Your task to perform on an android device: Open Chrome and go to settings Image 0: 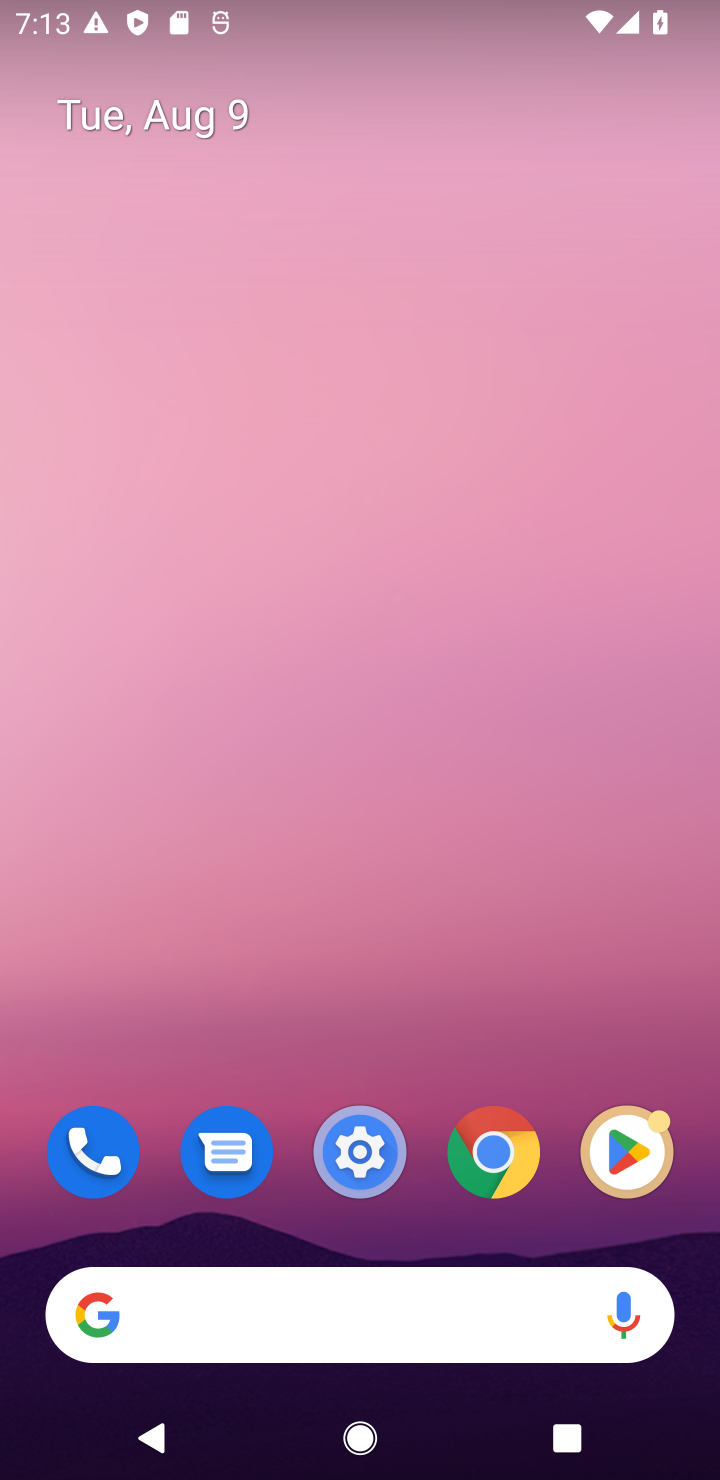
Step 0: click (496, 1162)
Your task to perform on an android device: Open Chrome and go to settings Image 1: 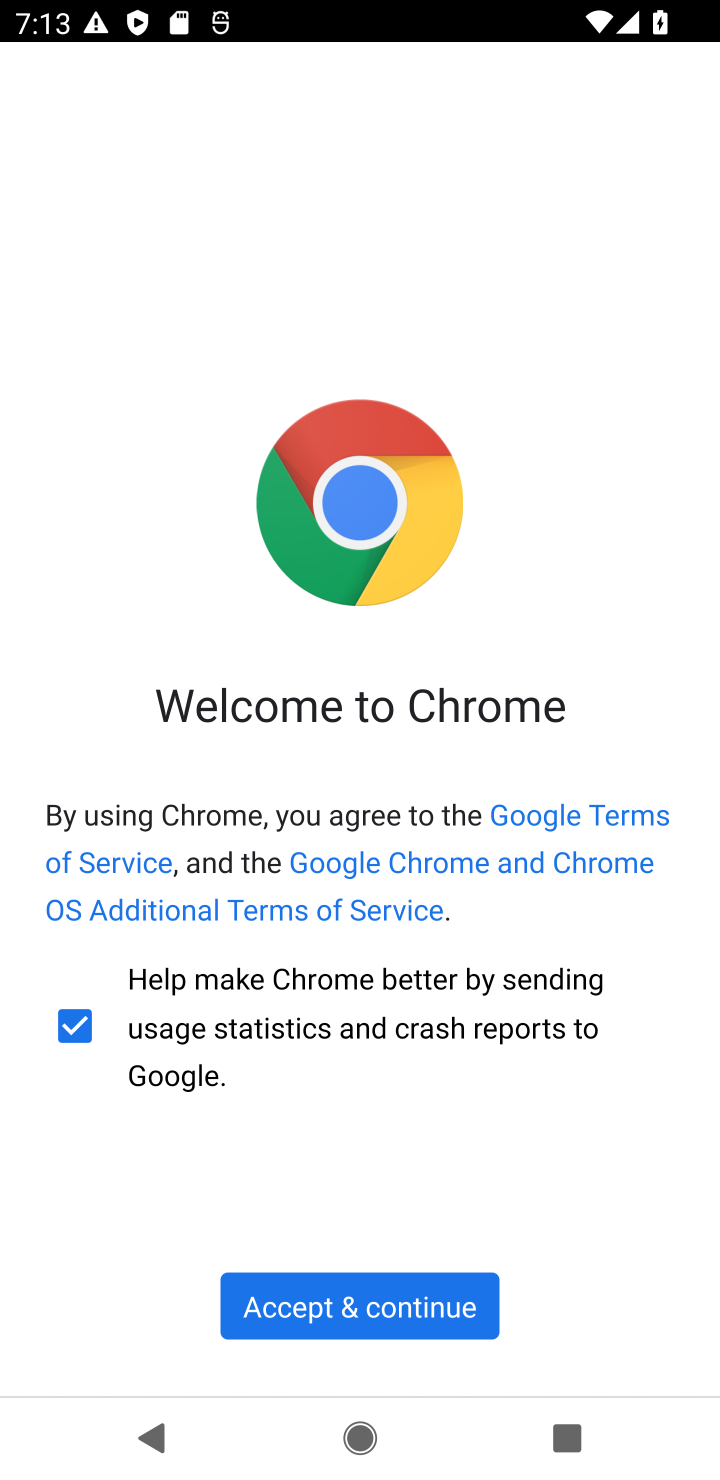
Step 1: click (420, 1279)
Your task to perform on an android device: Open Chrome and go to settings Image 2: 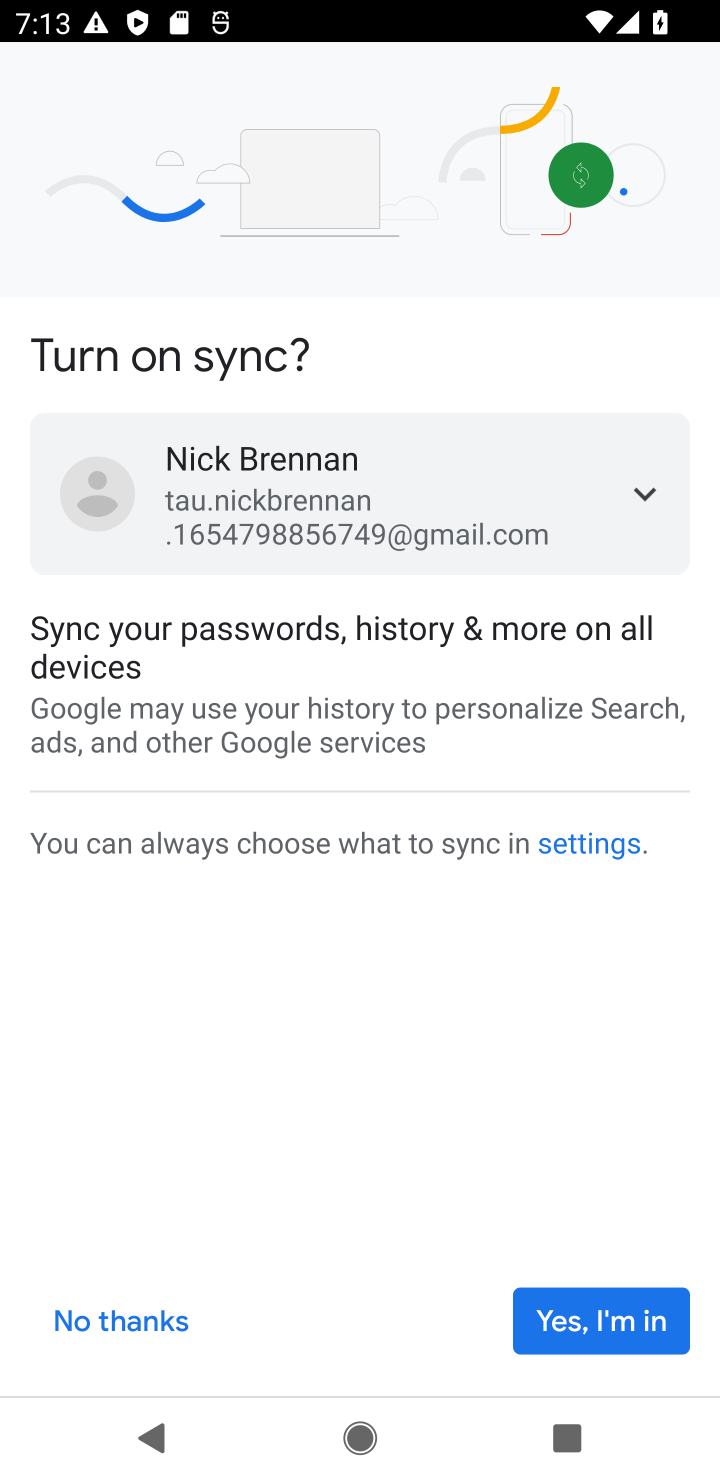
Step 2: click (602, 1313)
Your task to perform on an android device: Open Chrome and go to settings Image 3: 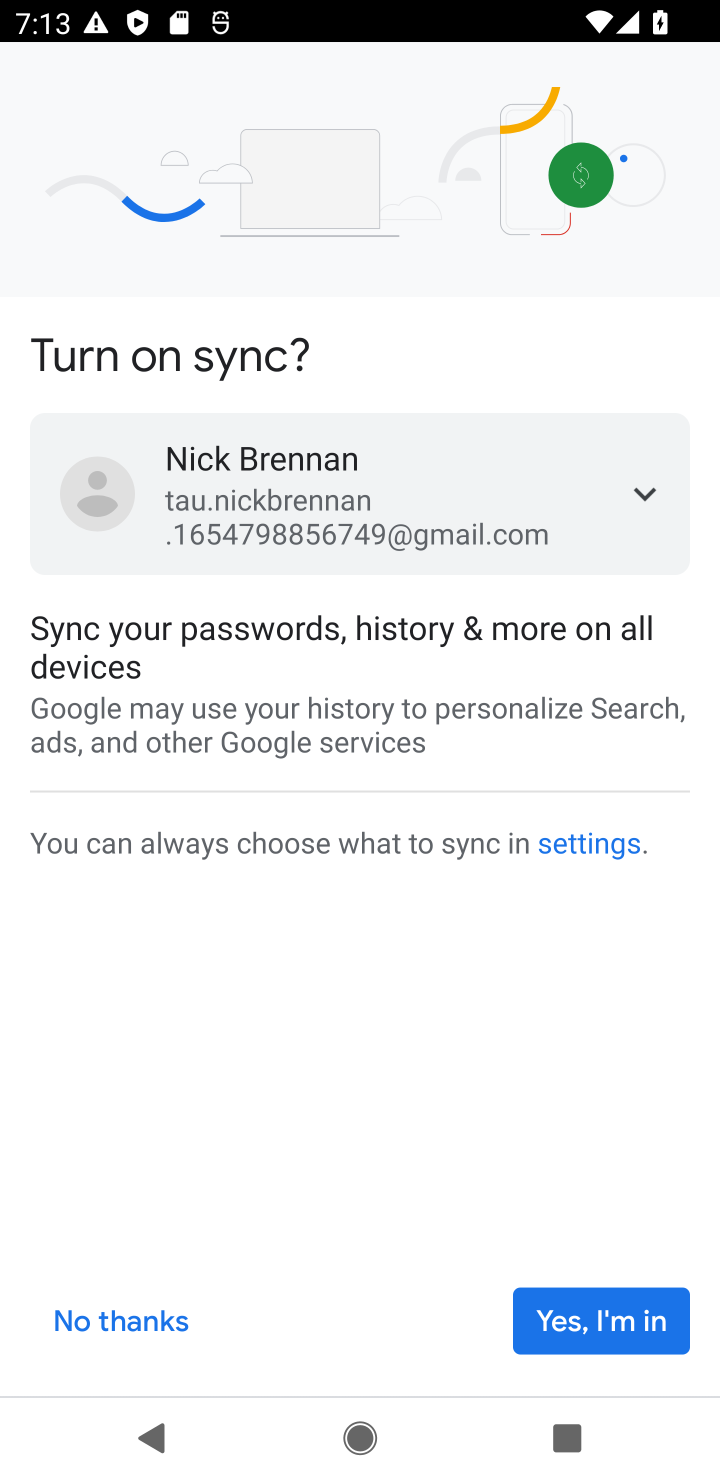
Step 3: click (602, 1313)
Your task to perform on an android device: Open Chrome and go to settings Image 4: 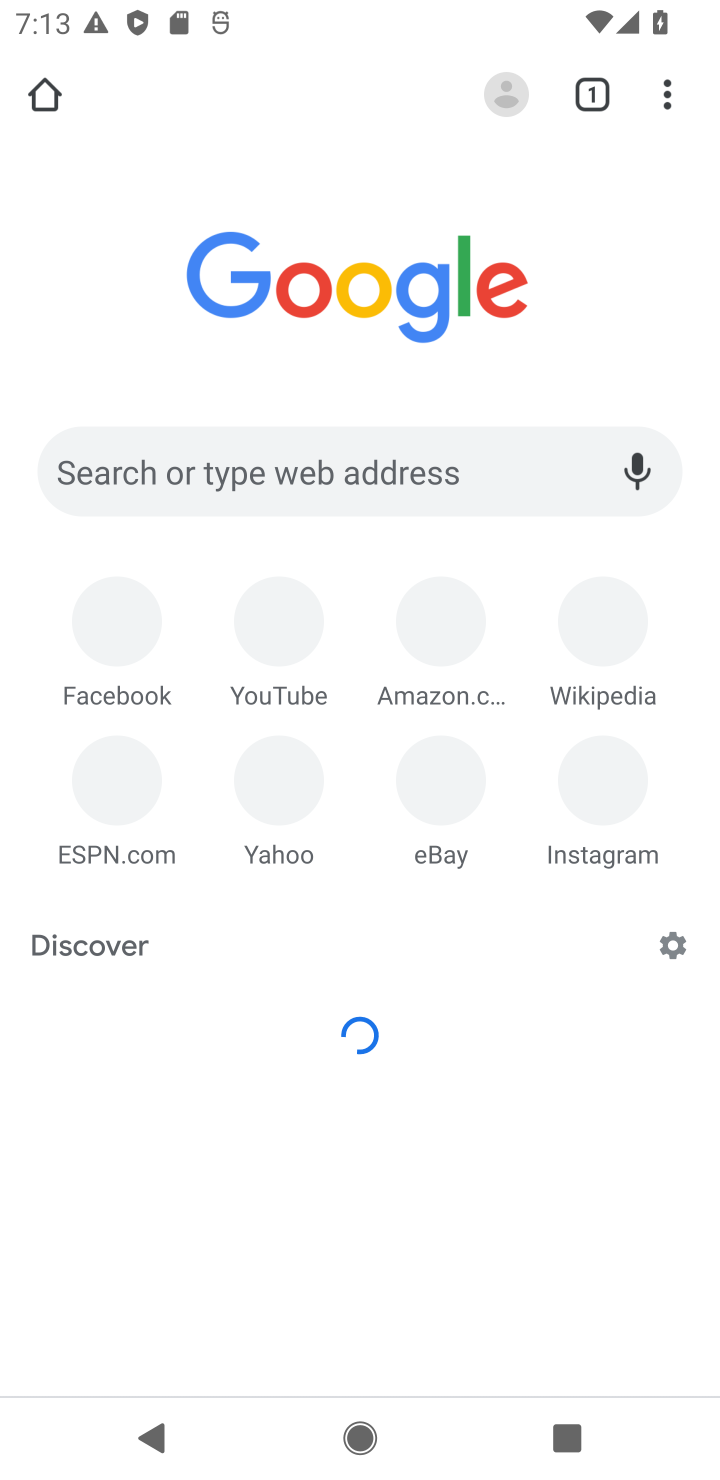
Step 4: click (602, 1322)
Your task to perform on an android device: Open Chrome and go to settings Image 5: 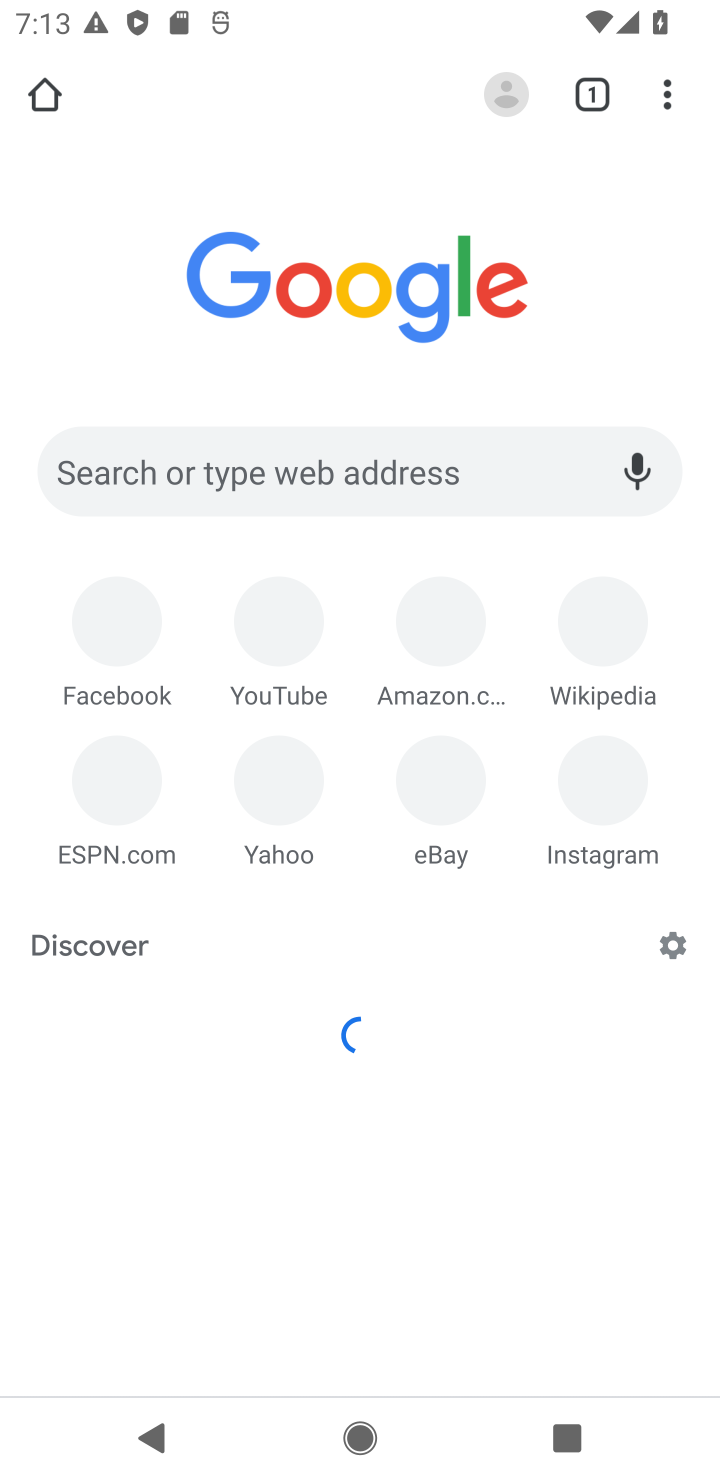
Step 5: click (699, 81)
Your task to perform on an android device: Open Chrome and go to settings Image 6: 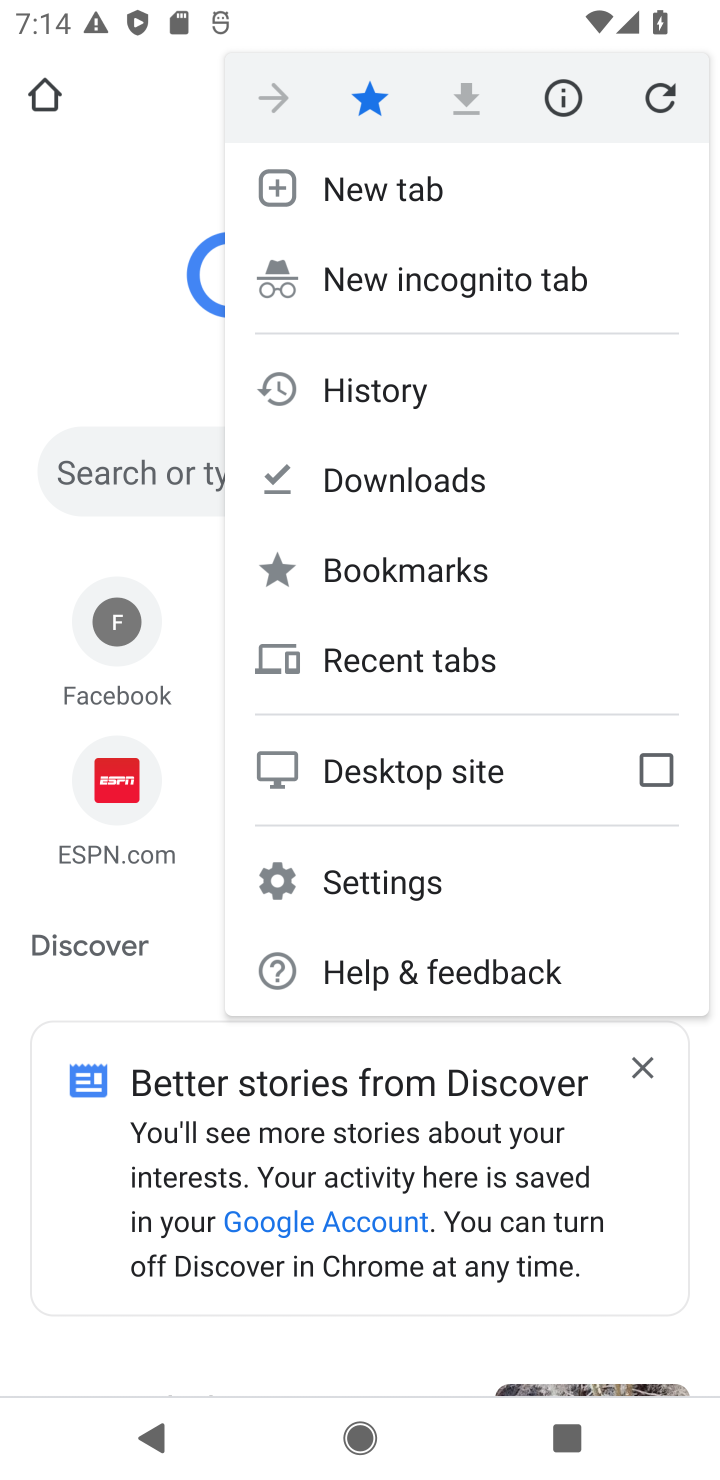
Step 6: click (455, 890)
Your task to perform on an android device: Open Chrome and go to settings Image 7: 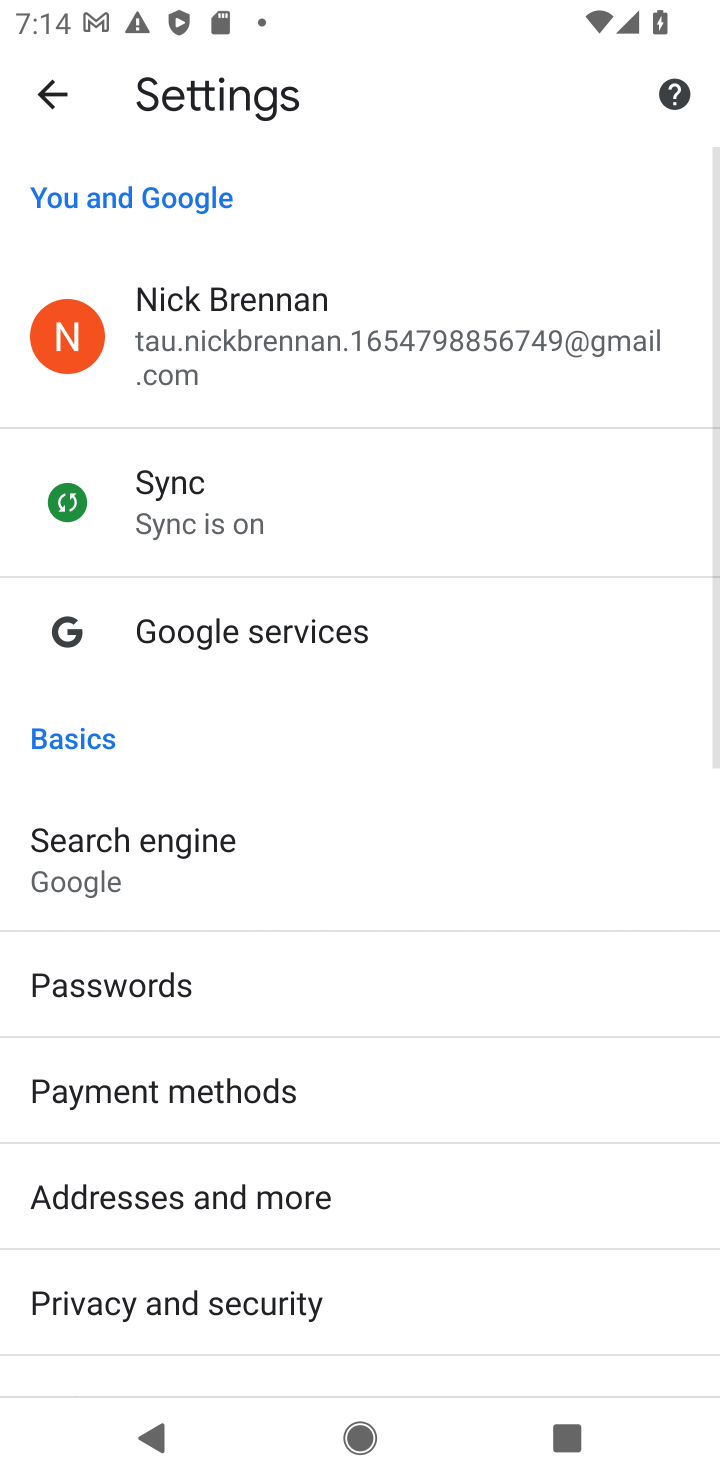
Step 7: task complete